Your task to perform on an android device: Open internet settings Image 0: 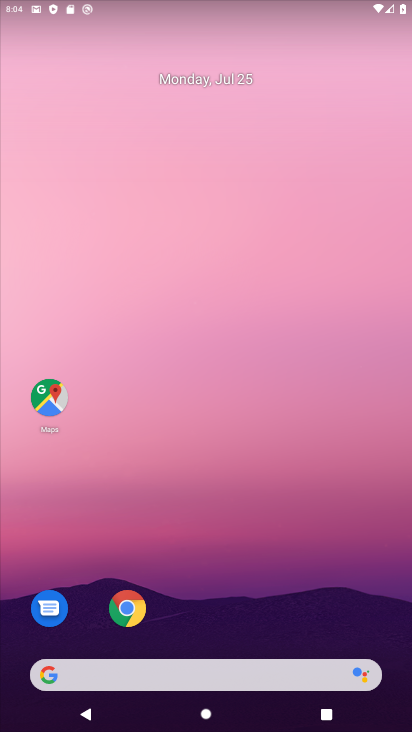
Step 0: drag from (155, 716) to (211, 49)
Your task to perform on an android device: Open internet settings Image 1: 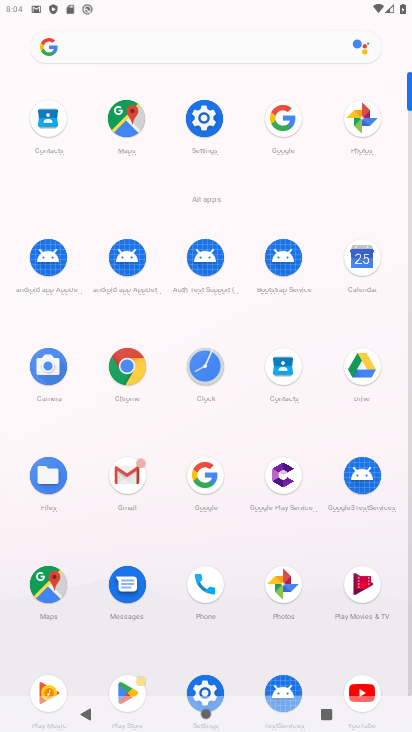
Step 1: click (197, 117)
Your task to perform on an android device: Open internet settings Image 2: 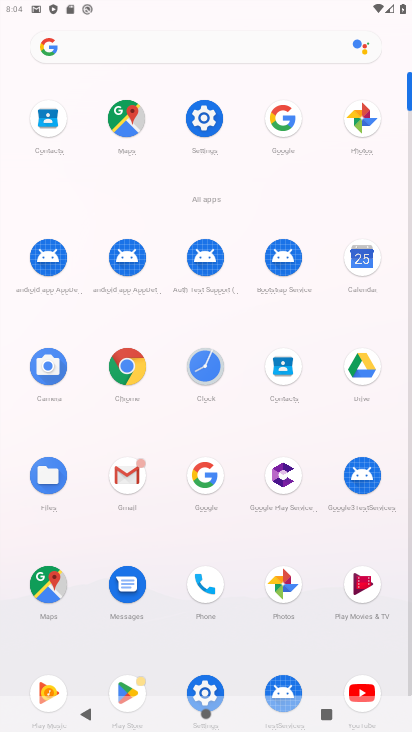
Step 2: click (197, 117)
Your task to perform on an android device: Open internet settings Image 3: 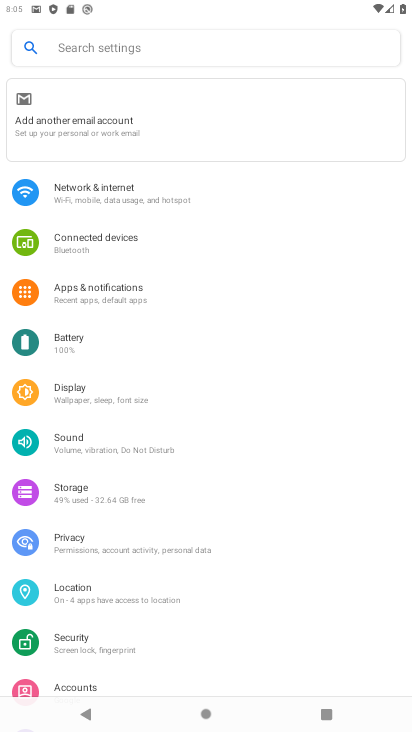
Step 3: click (157, 194)
Your task to perform on an android device: Open internet settings Image 4: 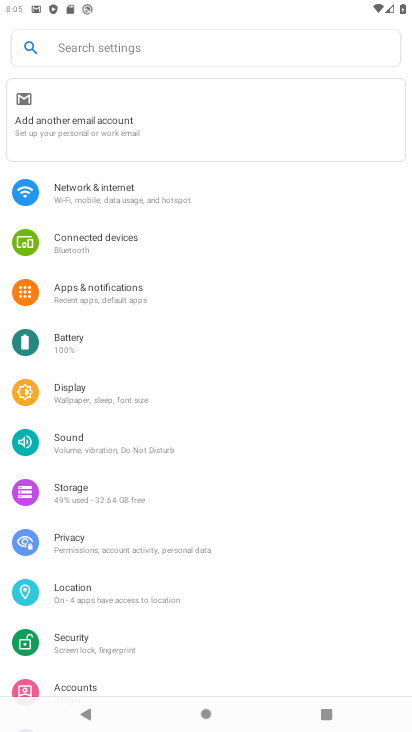
Step 4: click (157, 194)
Your task to perform on an android device: Open internet settings Image 5: 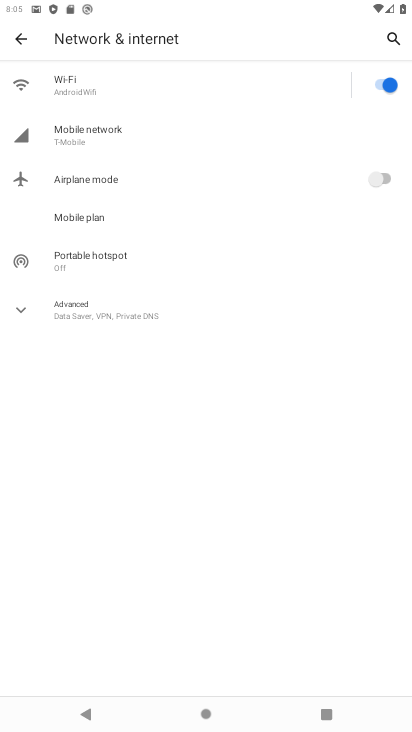
Step 5: task complete